Your task to perform on an android device: toggle pop-ups in chrome Image 0: 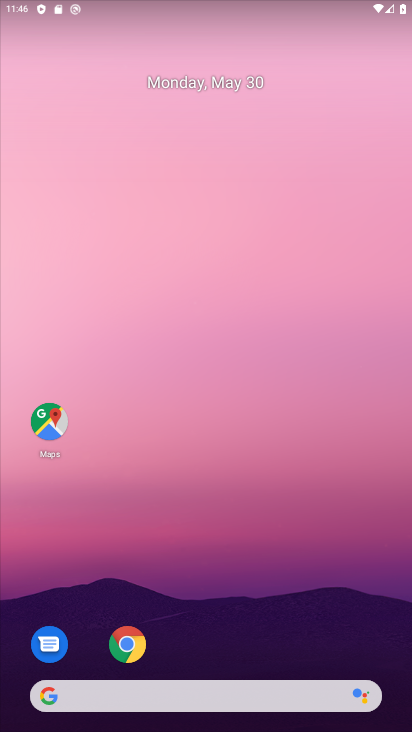
Step 0: drag from (182, 667) to (194, 1)
Your task to perform on an android device: toggle pop-ups in chrome Image 1: 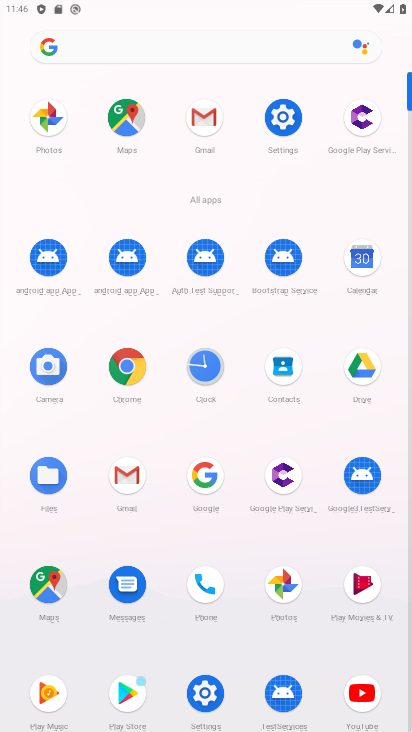
Step 1: click (131, 363)
Your task to perform on an android device: toggle pop-ups in chrome Image 2: 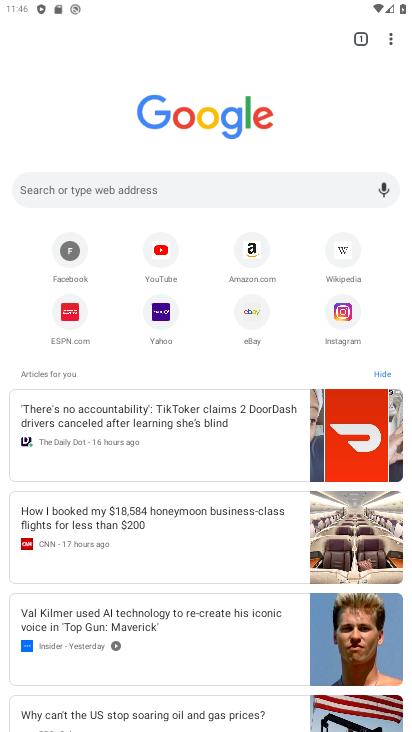
Step 2: drag from (397, 25) to (263, 372)
Your task to perform on an android device: toggle pop-ups in chrome Image 3: 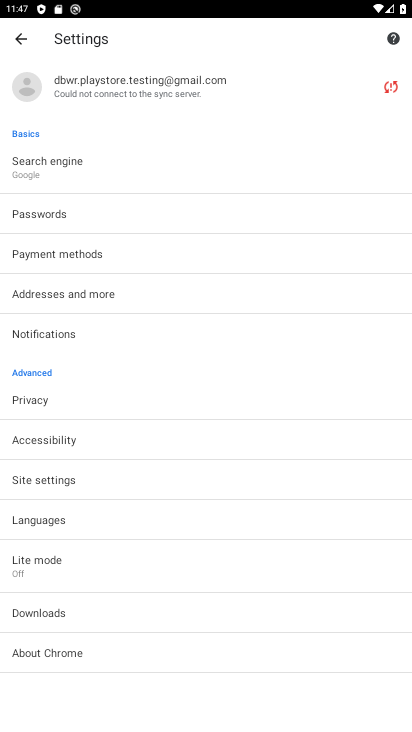
Step 3: click (68, 472)
Your task to perform on an android device: toggle pop-ups in chrome Image 4: 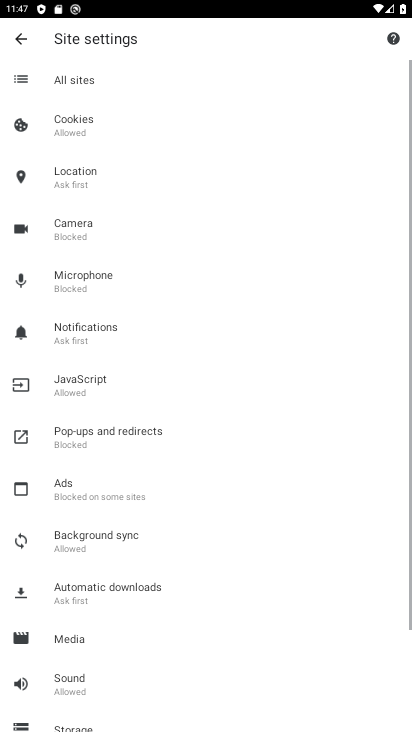
Step 4: drag from (79, 547) to (164, 0)
Your task to perform on an android device: toggle pop-ups in chrome Image 5: 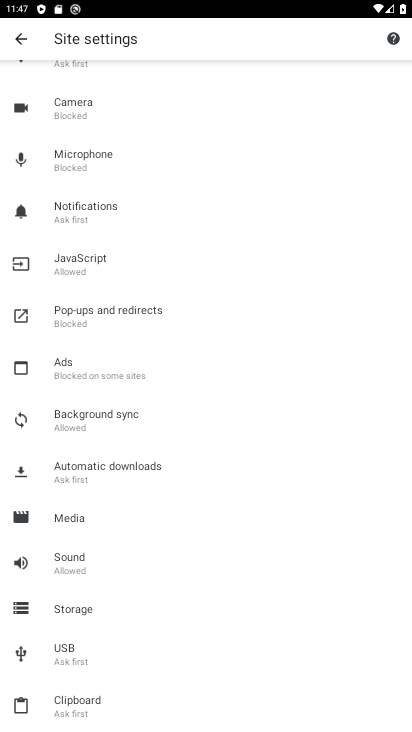
Step 5: drag from (114, 467) to (186, 168)
Your task to perform on an android device: toggle pop-ups in chrome Image 6: 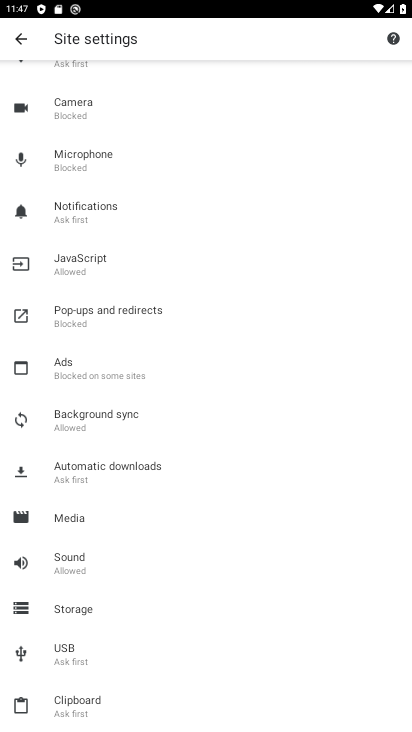
Step 6: click (96, 318)
Your task to perform on an android device: toggle pop-ups in chrome Image 7: 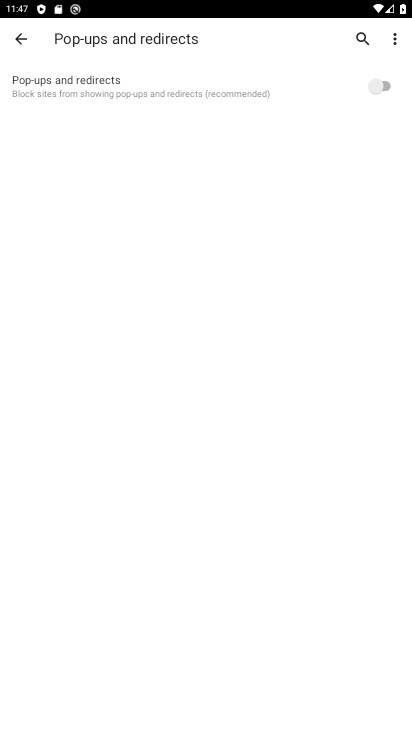
Step 7: click (372, 78)
Your task to perform on an android device: toggle pop-ups in chrome Image 8: 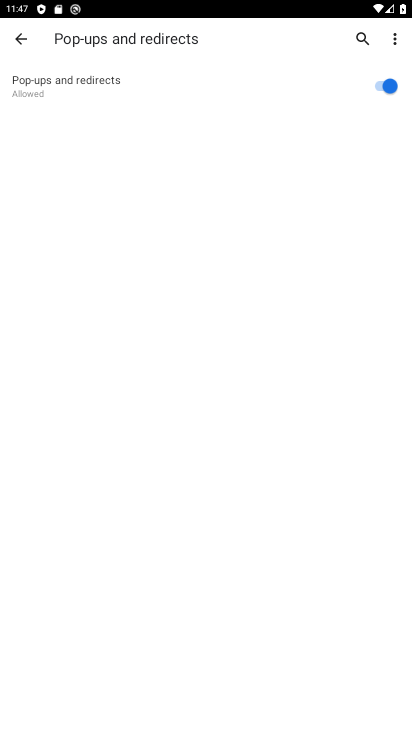
Step 8: task complete